Your task to perform on an android device: turn off javascript in the chrome app Image 0: 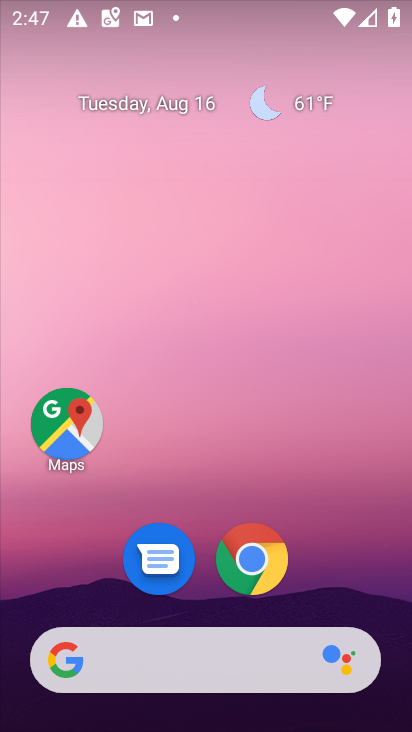
Step 0: click (252, 559)
Your task to perform on an android device: turn off javascript in the chrome app Image 1: 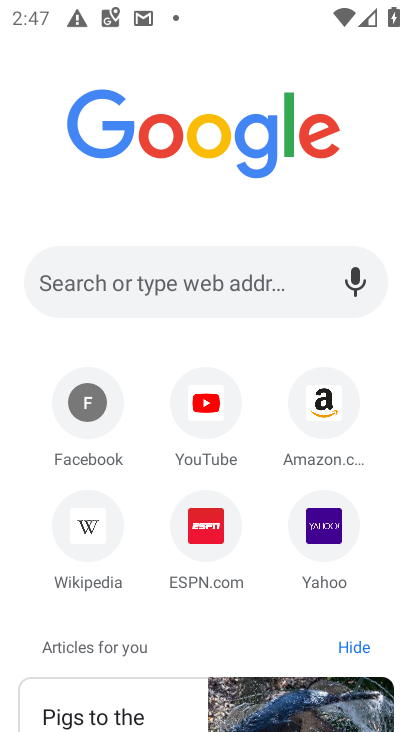
Step 1: drag from (323, 184) to (297, 434)
Your task to perform on an android device: turn off javascript in the chrome app Image 2: 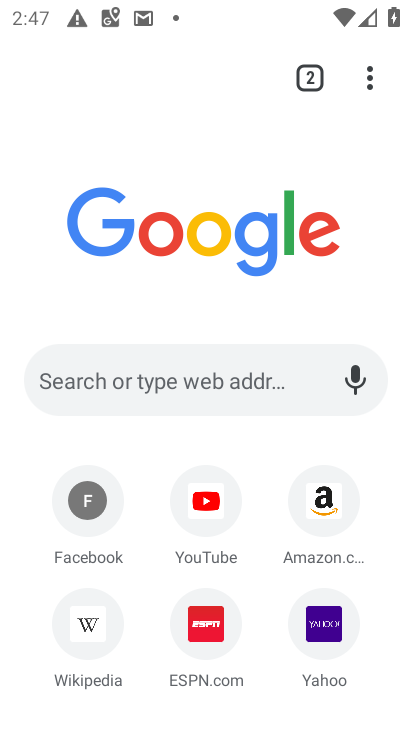
Step 2: click (363, 87)
Your task to perform on an android device: turn off javascript in the chrome app Image 3: 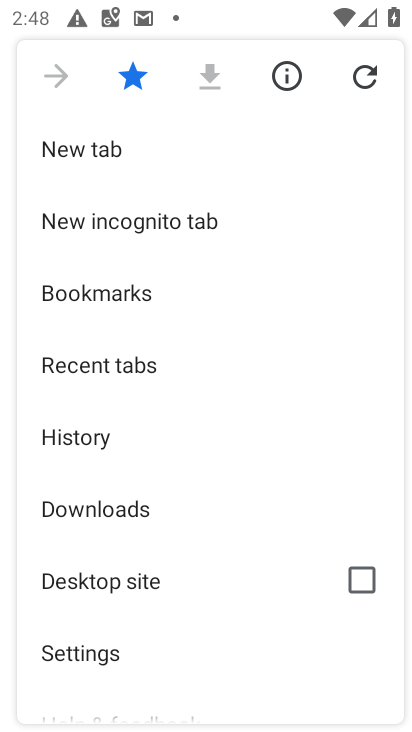
Step 3: drag from (201, 556) to (234, 302)
Your task to perform on an android device: turn off javascript in the chrome app Image 4: 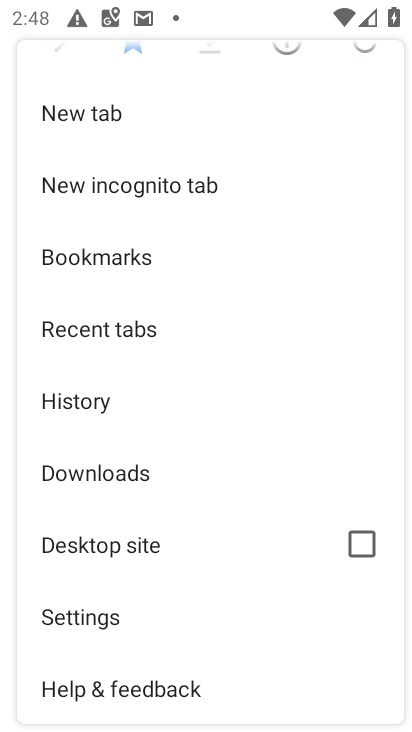
Step 4: click (96, 621)
Your task to perform on an android device: turn off javascript in the chrome app Image 5: 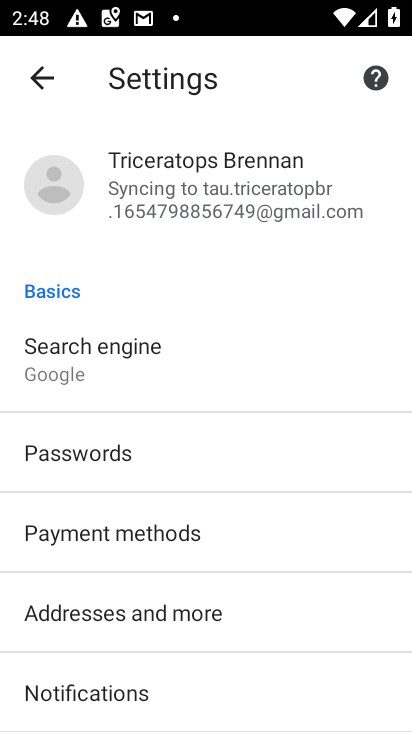
Step 5: drag from (251, 632) to (238, 255)
Your task to perform on an android device: turn off javascript in the chrome app Image 6: 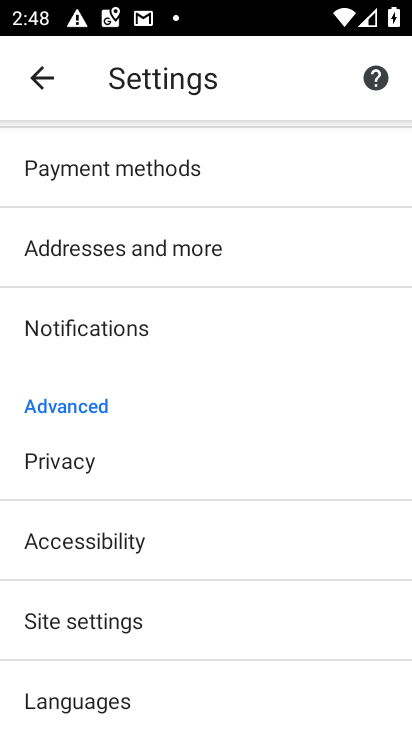
Step 6: drag from (186, 666) to (211, 376)
Your task to perform on an android device: turn off javascript in the chrome app Image 7: 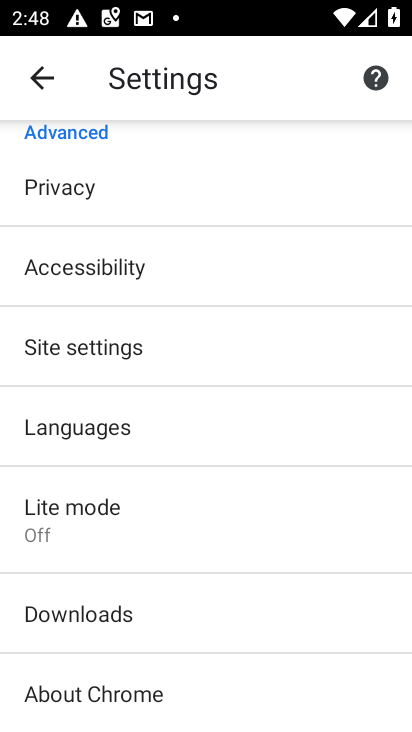
Step 7: click (74, 347)
Your task to perform on an android device: turn off javascript in the chrome app Image 8: 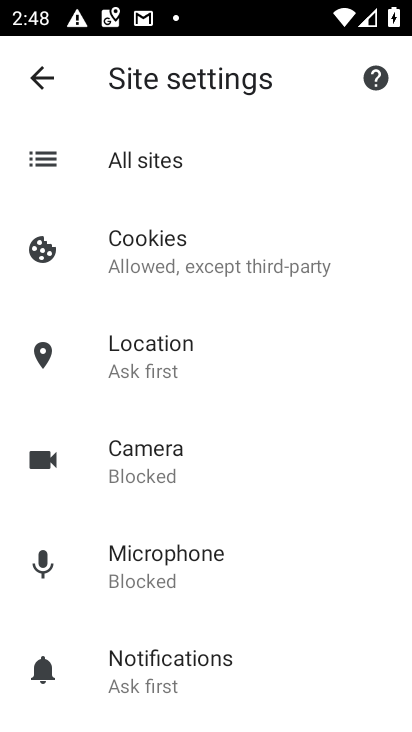
Step 8: drag from (252, 628) to (297, 371)
Your task to perform on an android device: turn off javascript in the chrome app Image 9: 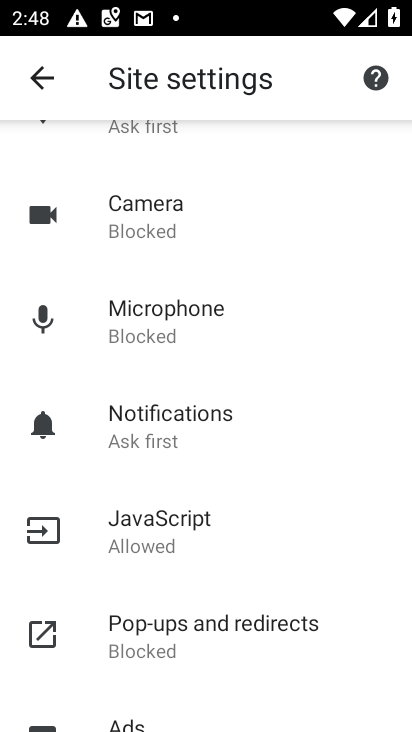
Step 9: click (135, 536)
Your task to perform on an android device: turn off javascript in the chrome app Image 10: 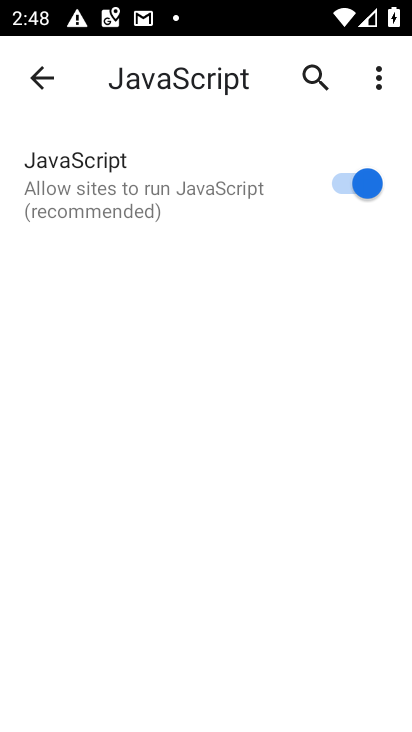
Step 10: click (335, 178)
Your task to perform on an android device: turn off javascript in the chrome app Image 11: 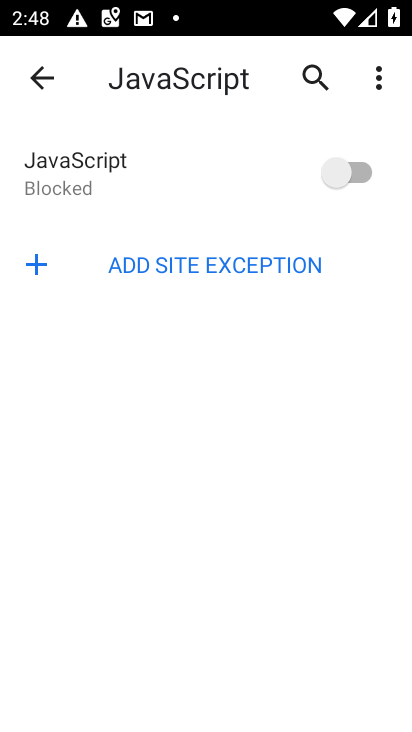
Step 11: task complete